Your task to perform on an android device: find which apps use the phone's location Image 0: 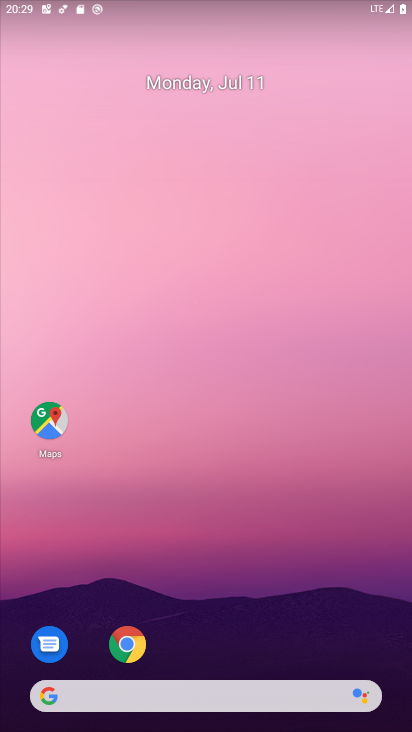
Step 0: drag from (227, 614) to (201, 311)
Your task to perform on an android device: find which apps use the phone's location Image 1: 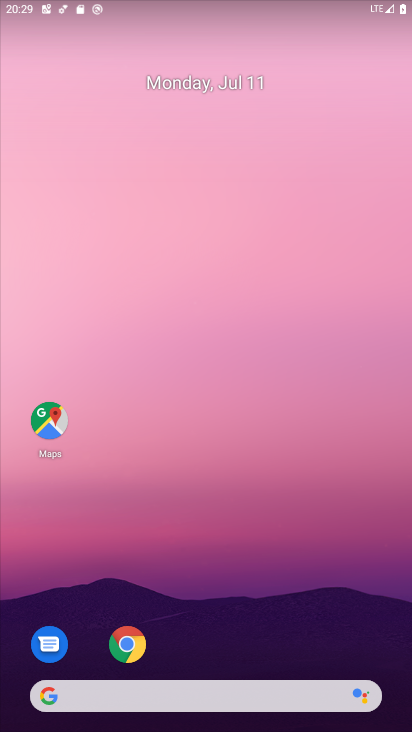
Step 1: drag from (177, 633) to (172, 347)
Your task to perform on an android device: find which apps use the phone's location Image 2: 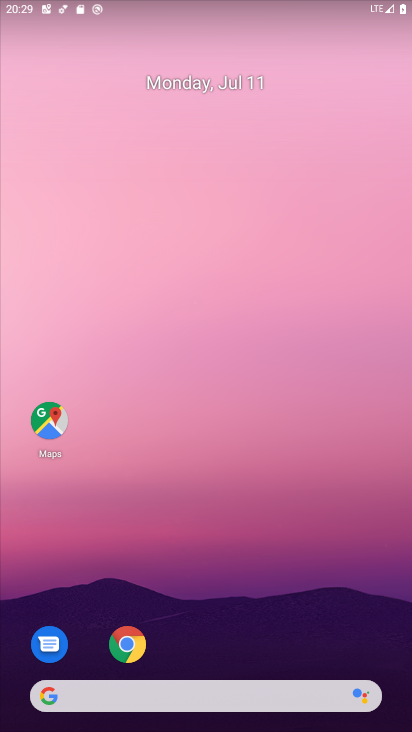
Step 2: drag from (253, 669) to (253, 327)
Your task to perform on an android device: find which apps use the phone's location Image 3: 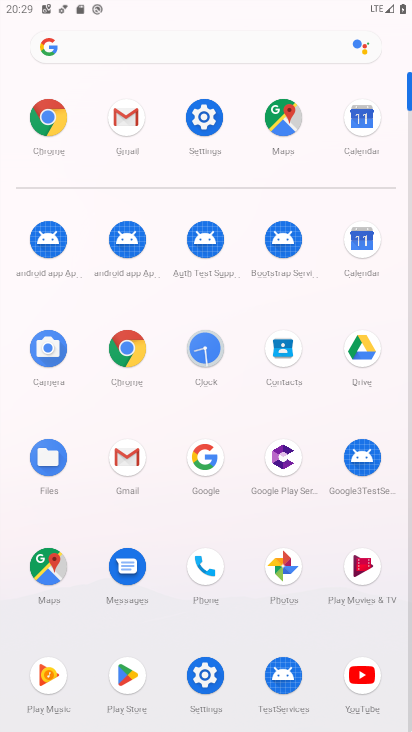
Step 3: click (207, 114)
Your task to perform on an android device: find which apps use the phone's location Image 4: 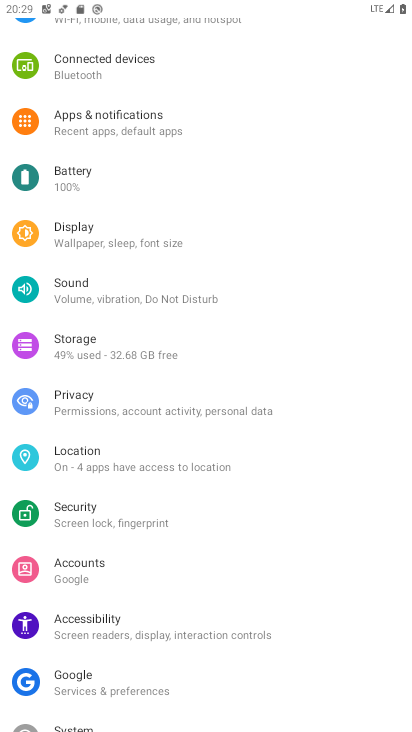
Step 4: click (112, 466)
Your task to perform on an android device: find which apps use the phone's location Image 5: 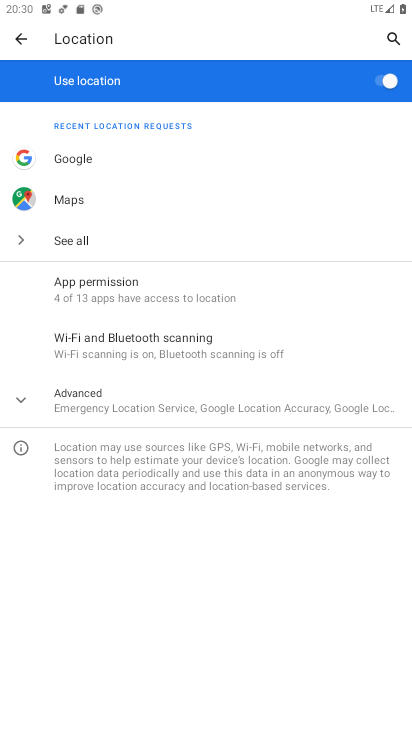
Step 5: task complete